Your task to perform on an android device: install app "TextNow: Call + Text Unlimited" Image 0: 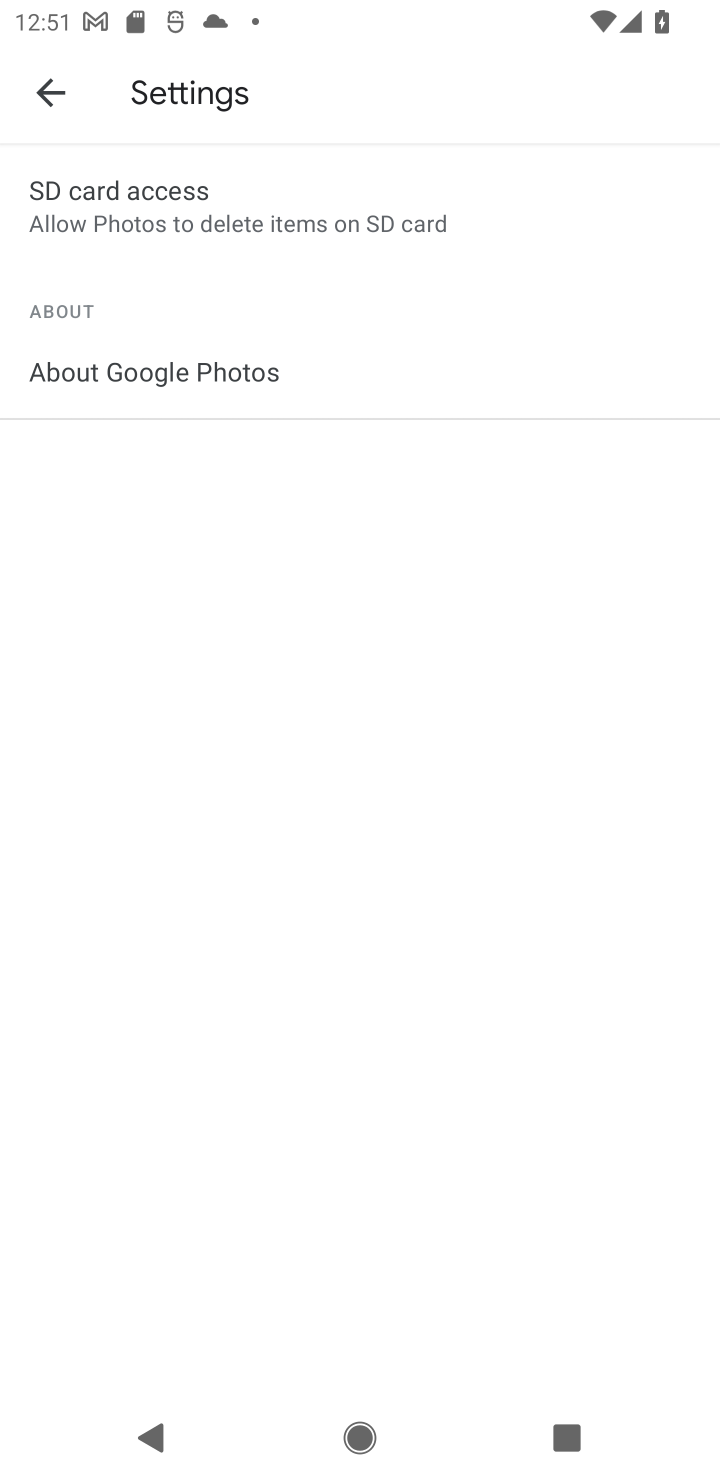
Step 0: press home button
Your task to perform on an android device: install app "TextNow: Call + Text Unlimited" Image 1: 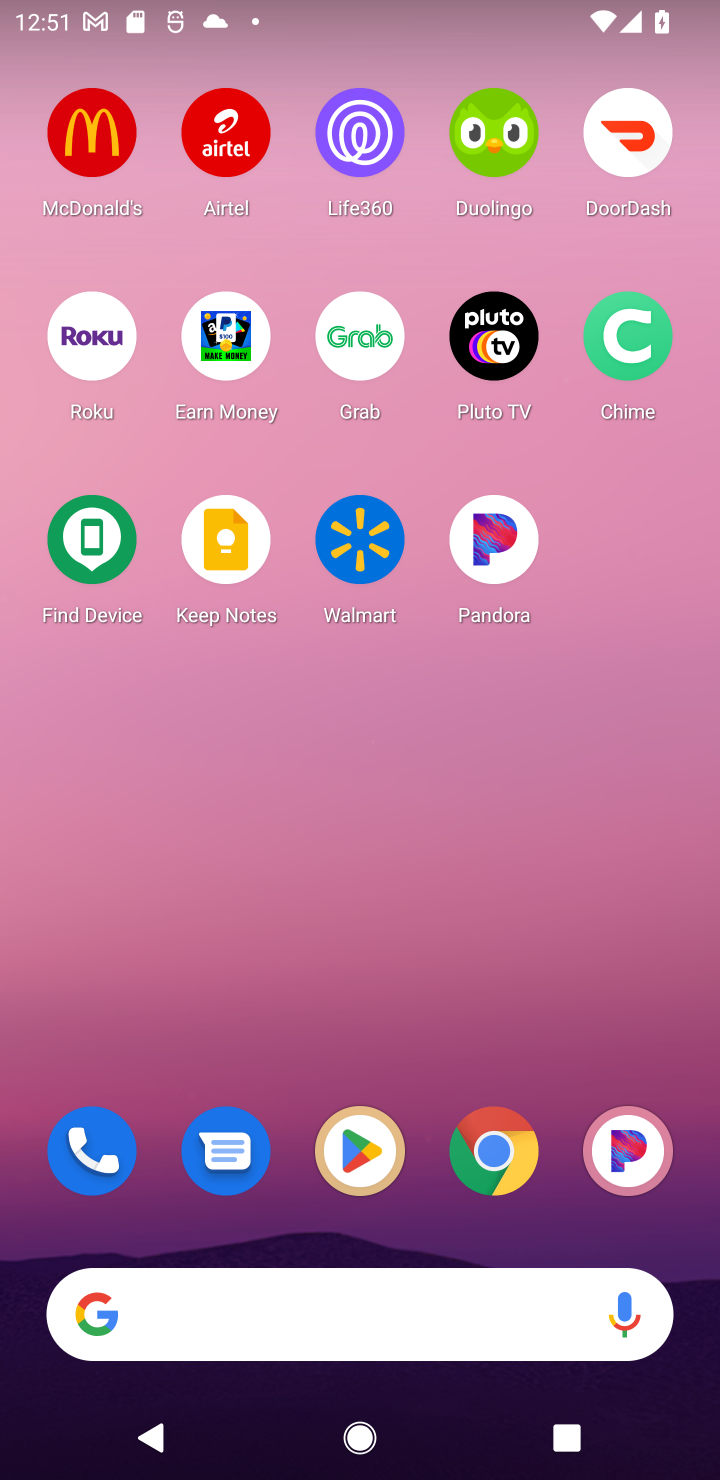
Step 1: click (358, 1170)
Your task to perform on an android device: install app "TextNow: Call + Text Unlimited" Image 2: 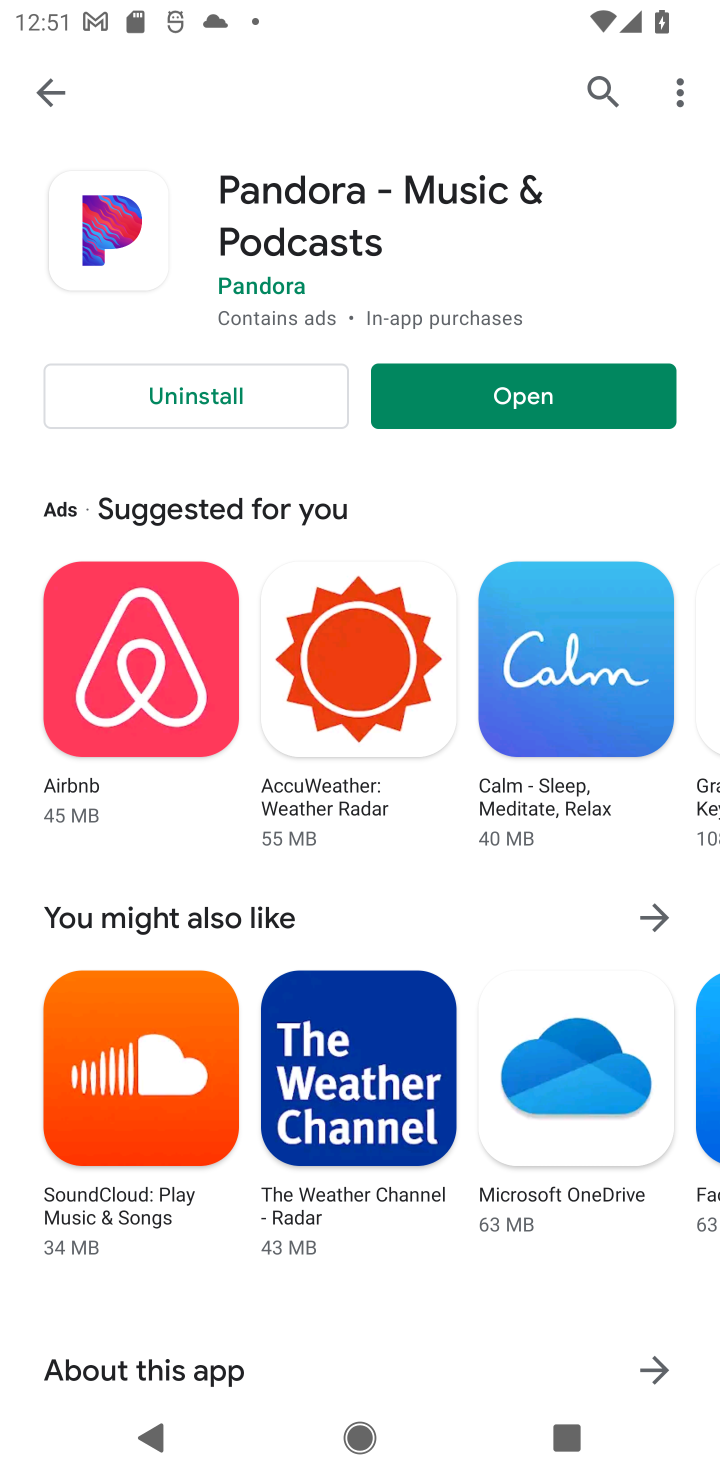
Step 2: click (52, 109)
Your task to perform on an android device: install app "TextNow: Call + Text Unlimited" Image 3: 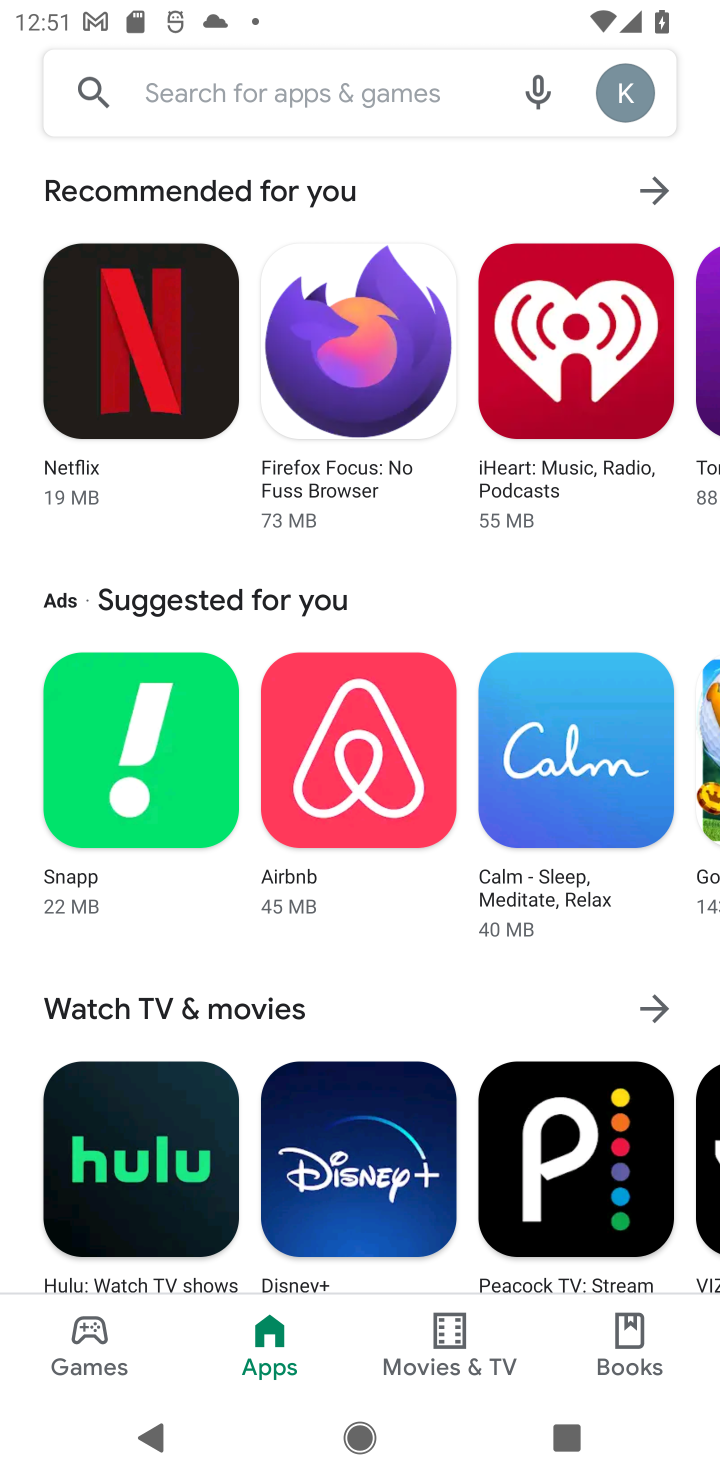
Step 3: click (331, 93)
Your task to perform on an android device: install app "TextNow: Call + Text Unlimited" Image 4: 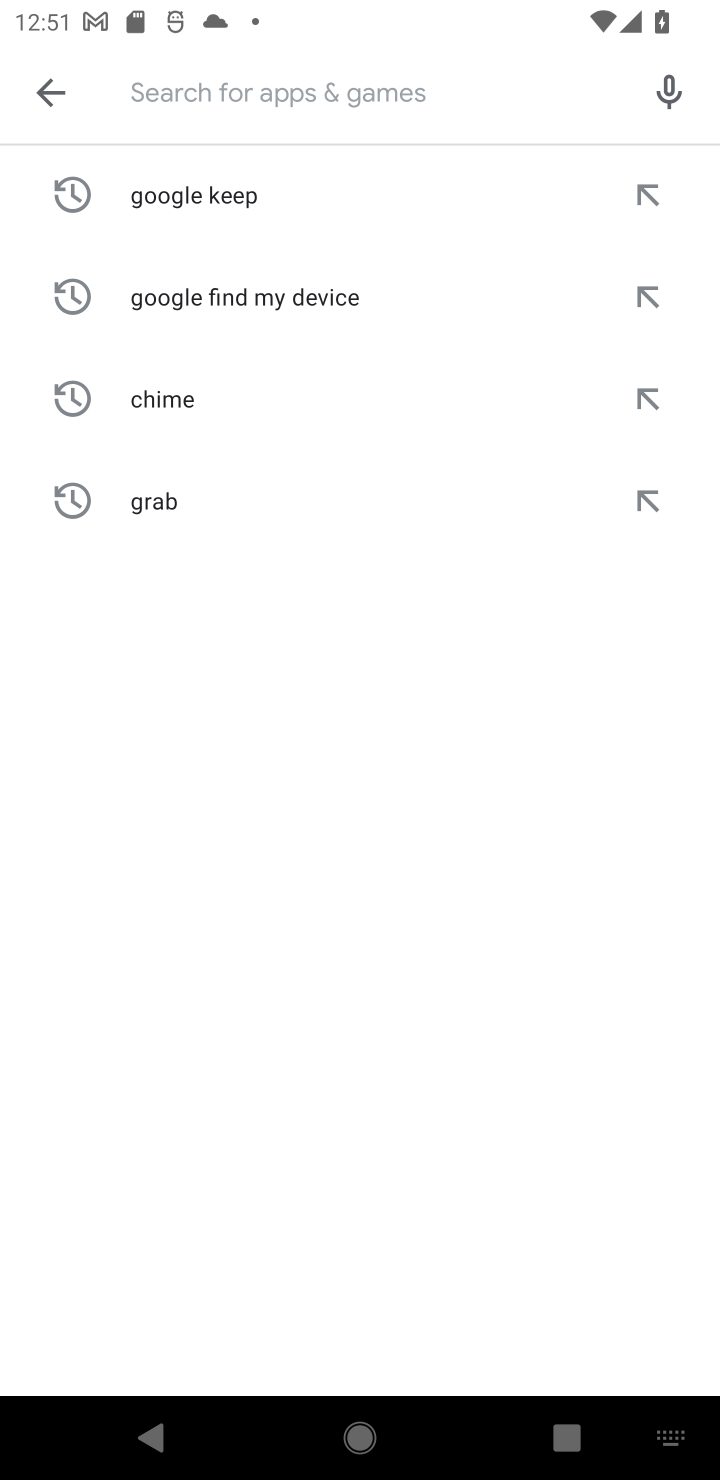
Step 4: type "TextNow: Call + Text Unlimited"
Your task to perform on an android device: install app "TextNow: Call + Text Unlimited" Image 5: 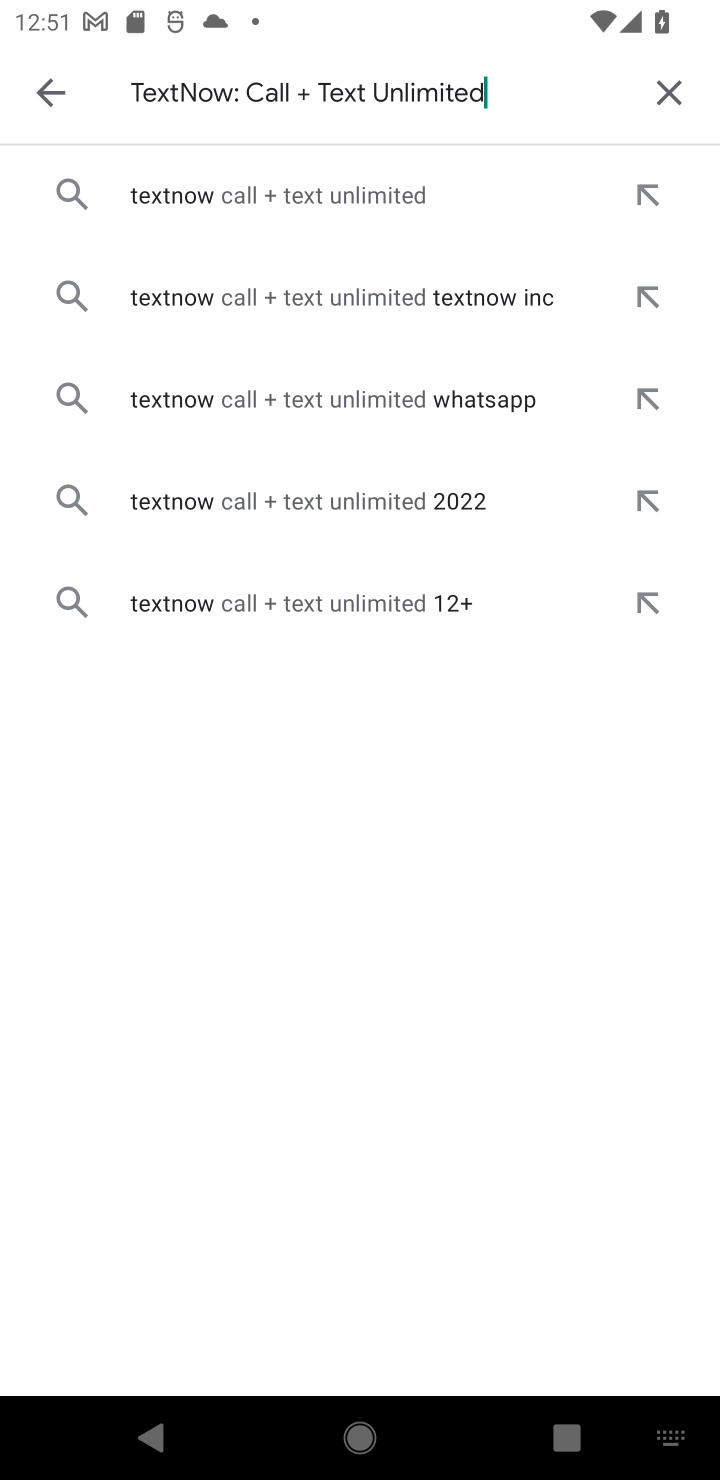
Step 5: click (312, 191)
Your task to perform on an android device: install app "TextNow: Call + Text Unlimited" Image 6: 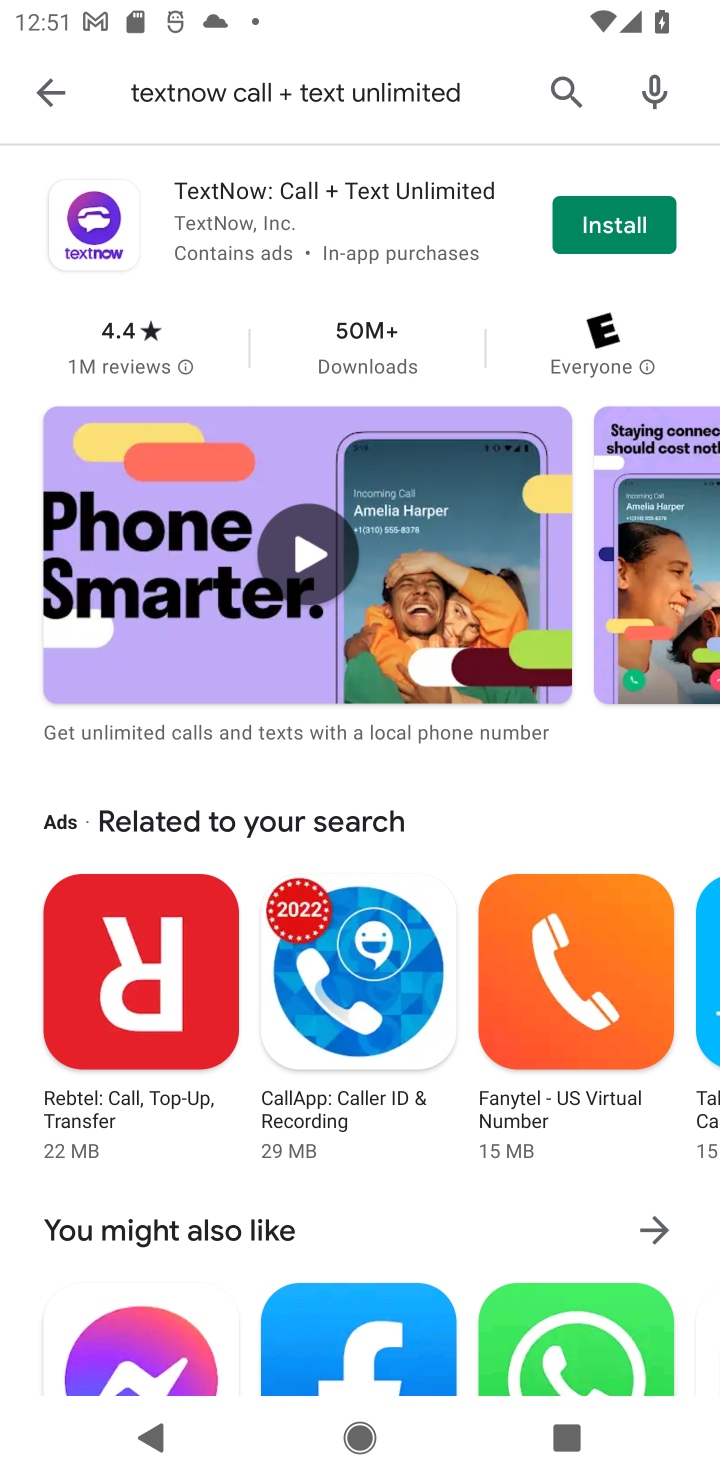
Step 6: click (589, 229)
Your task to perform on an android device: install app "TextNow: Call + Text Unlimited" Image 7: 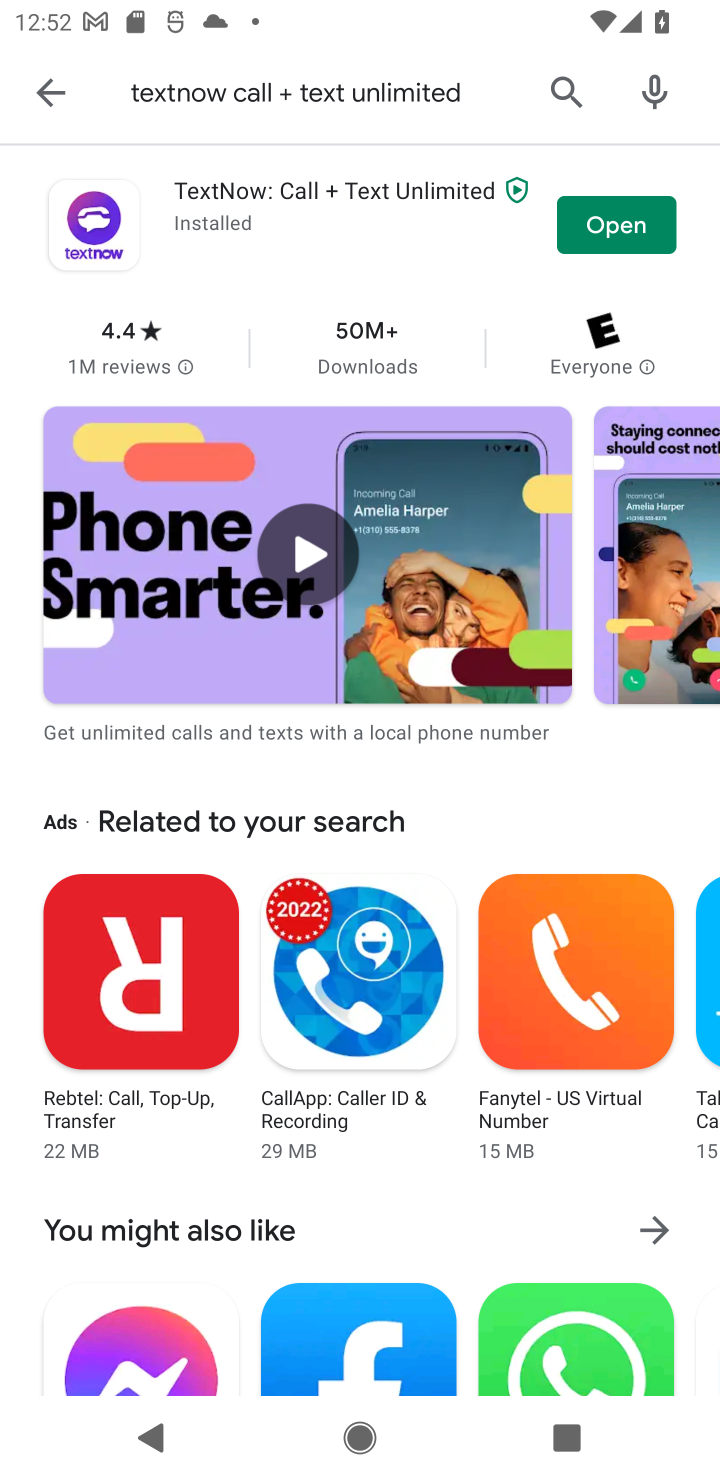
Step 7: click (589, 229)
Your task to perform on an android device: install app "TextNow: Call + Text Unlimited" Image 8: 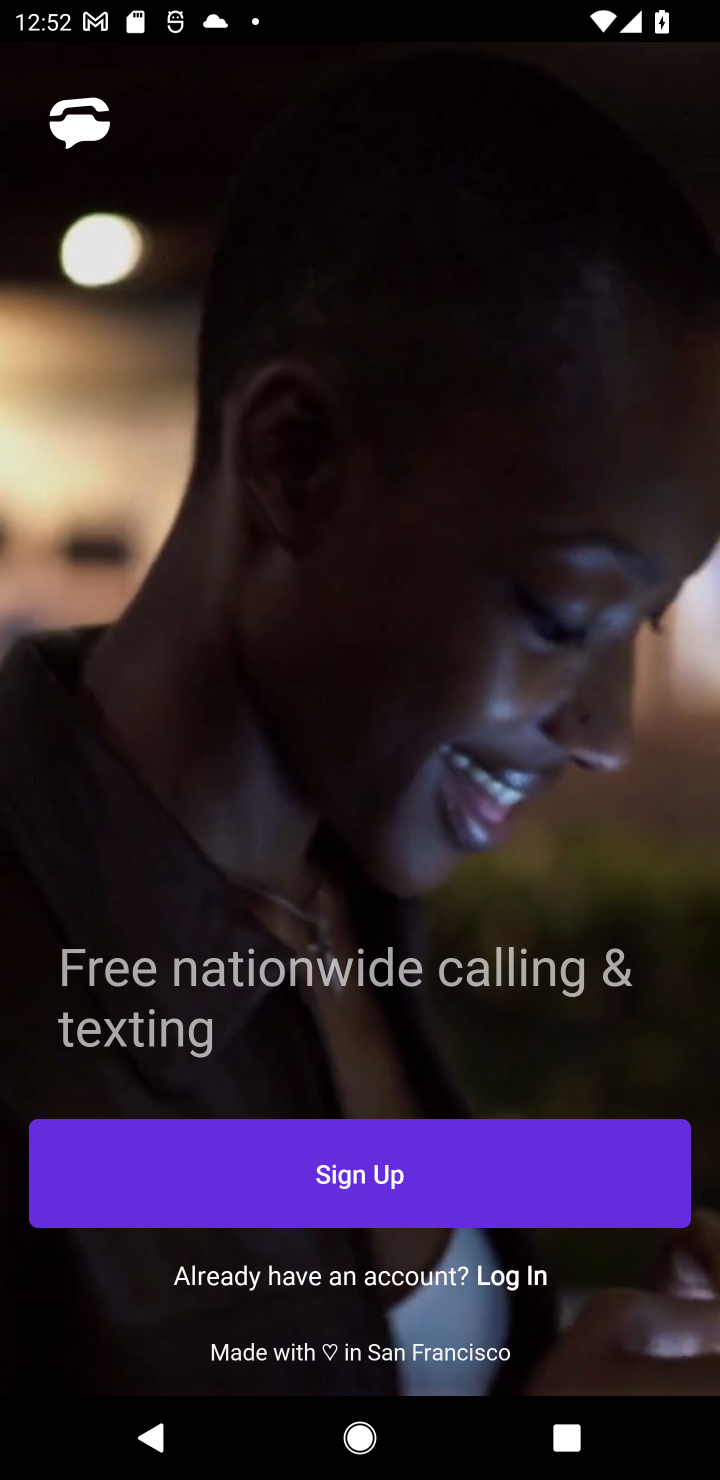
Step 8: task complete